Your task to perform on an android device: turn on location history Image 0: 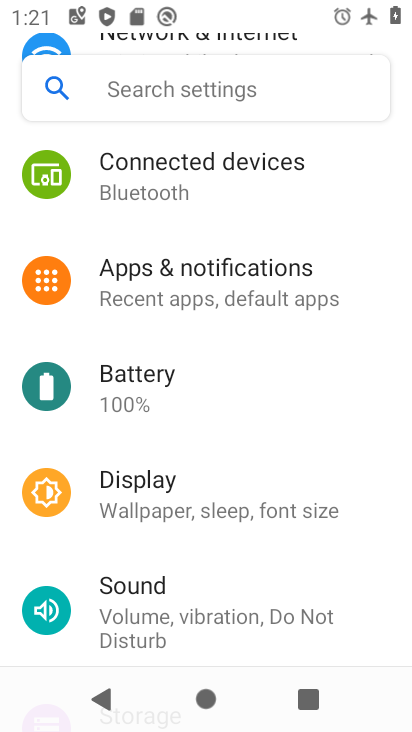
Step 0: drag from (243, 537) to (226, 210)
Your task to perform on an android device: turn on location history Image 1: 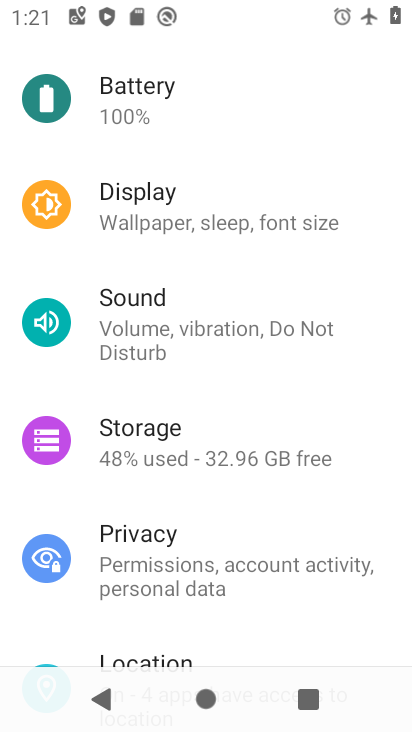
Step 1: drag from (203, 499) to (221, 171)
Your task to perform on an android device: turn on location history Image 2: 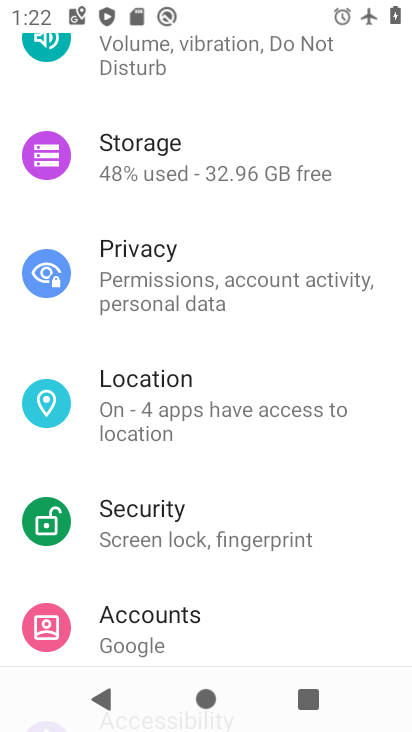
Step 2: click (178, 385)
Your task to perform on an android device: turn on location history Image 3: 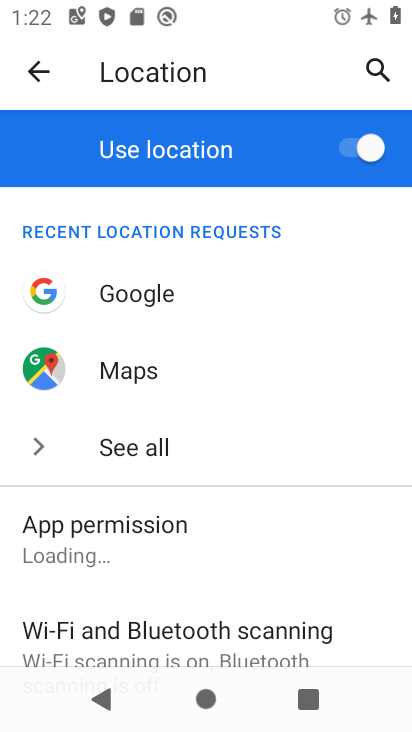
Step 3: drag from (187, 483) to (242, 294)
Your task to perform on an android device: turn on location history Image 4: 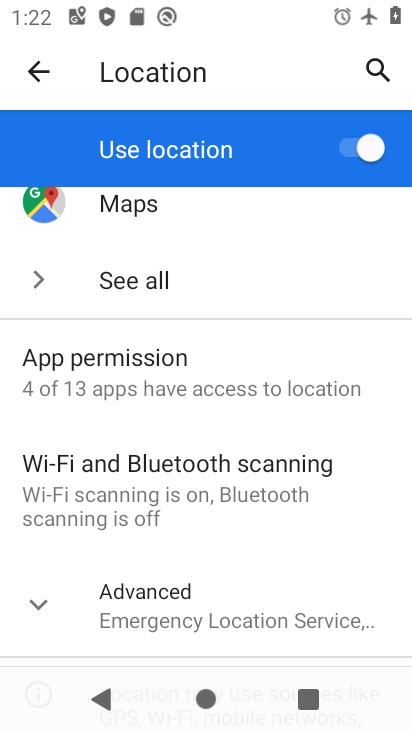
Step 4: drag from (162, 510) to (191, 323)
Your task to perform on an android device: turn on location history Image 5: 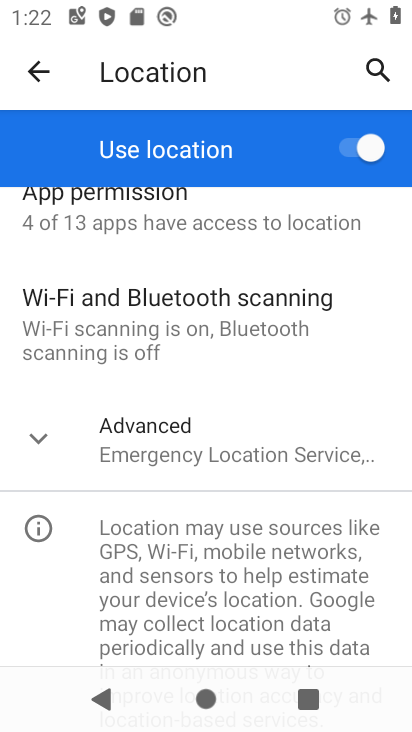
Step 5: click (48, 437)
Your task to perform on an android device: turn on location history Image 6: 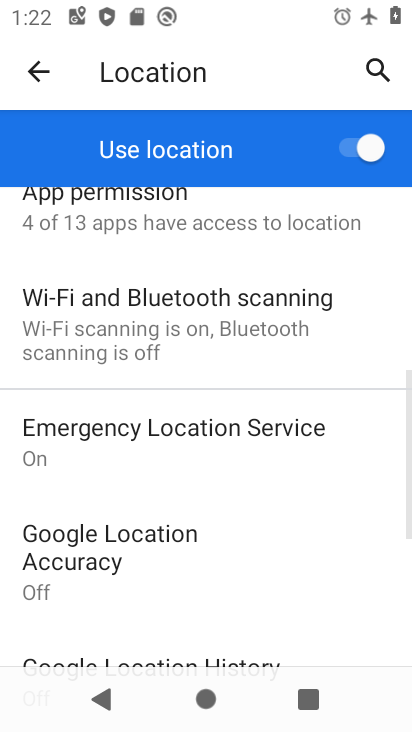
Step 6: drag from (173, 553) to (190, 375)
Your task to perform on an android device: turn on location history Image 7: 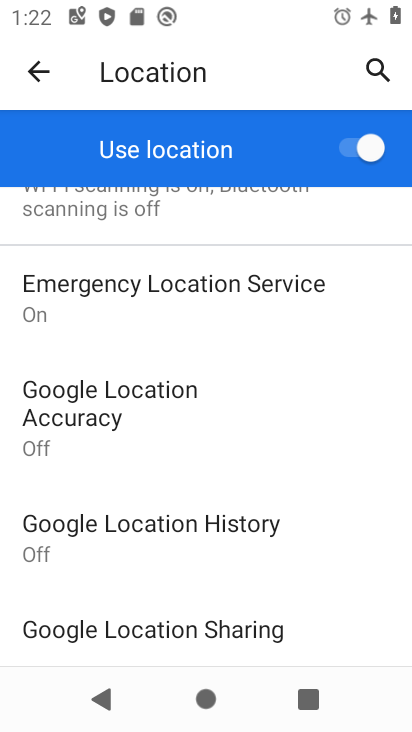
Step 7: click (184, 533)
Your task to perform on an android device: turn on location history Image 8: 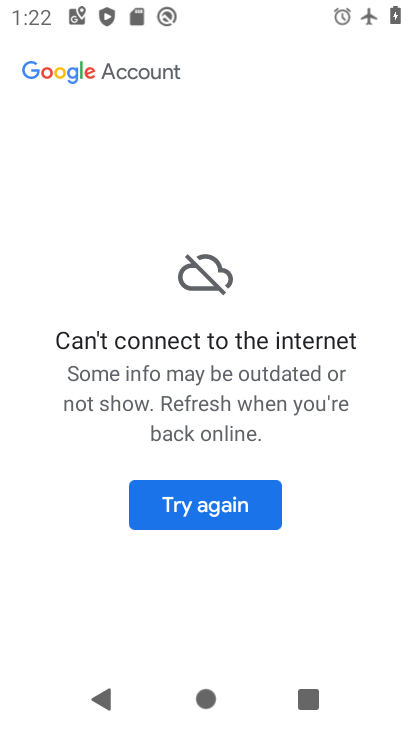
Step 8: click (226, 514)
Your task to perform on an android device: turn on location history Image 9: 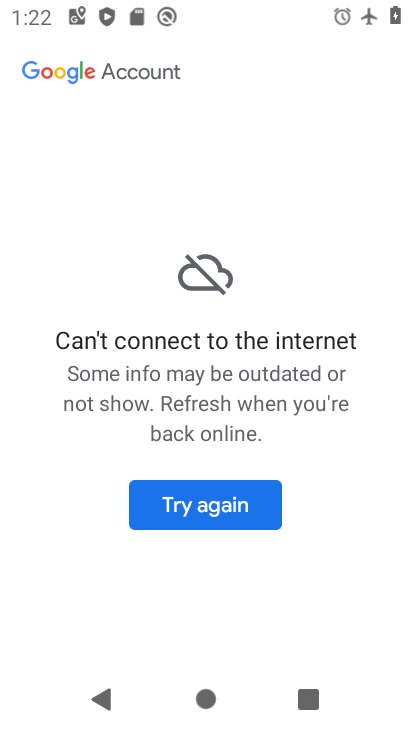
Step 9: task complete